Your task to perform on an android device: What's the weather going to be tomorrow? Image 0: 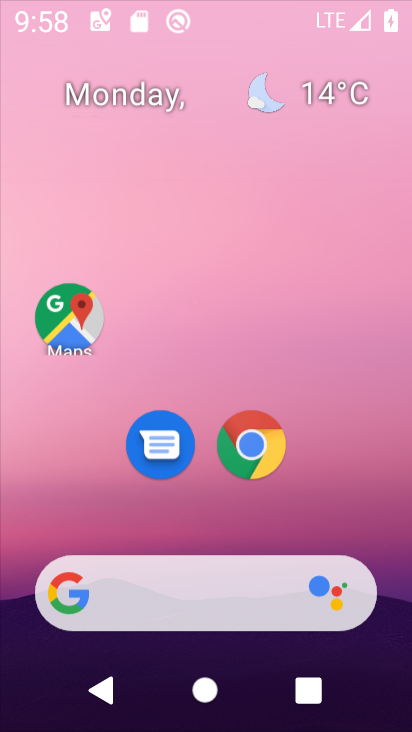
Step 0: press home button
Your task to perform on an android device: What's the weather going to be tomorrow? Image 1: 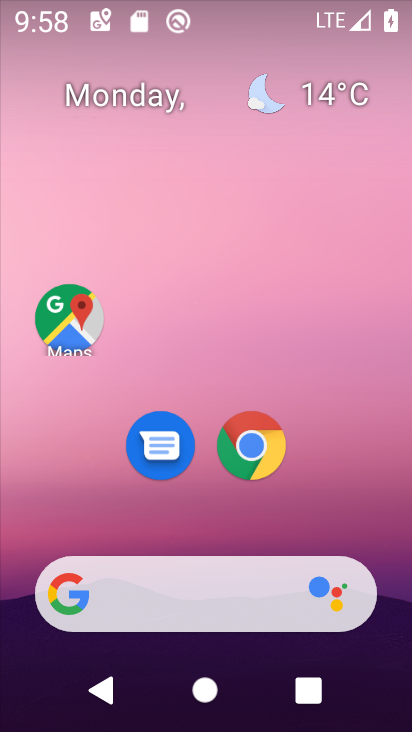
Step 1: click (334, 91)
Your task to perform on an android device: What's the weather going to be tomorrow? Image 2: 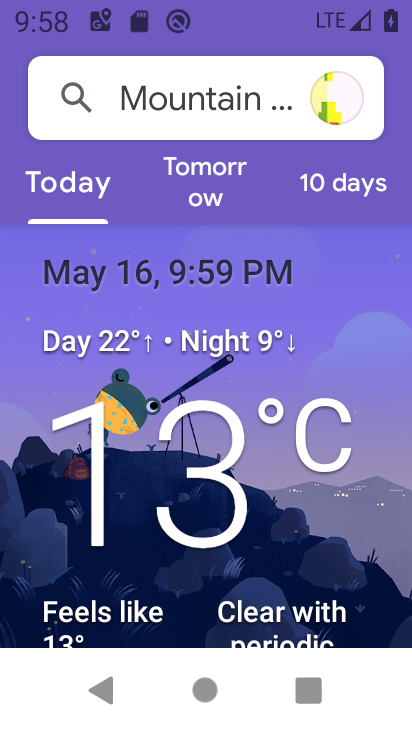
Step 2: click (211, 192)
Your task to perform on an android device: What's the weather going to be tomorrow? Image 3: 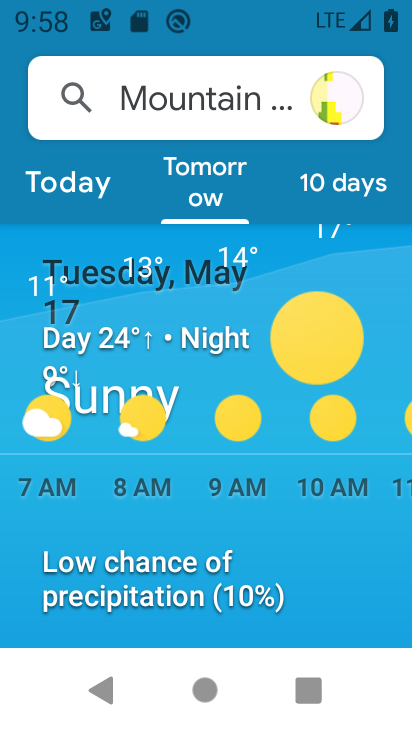
Step 3: drag from (356, 459) to (48, 410)
Your task to perform on an android device: What's the weather going to be tomorrow? Image 4: 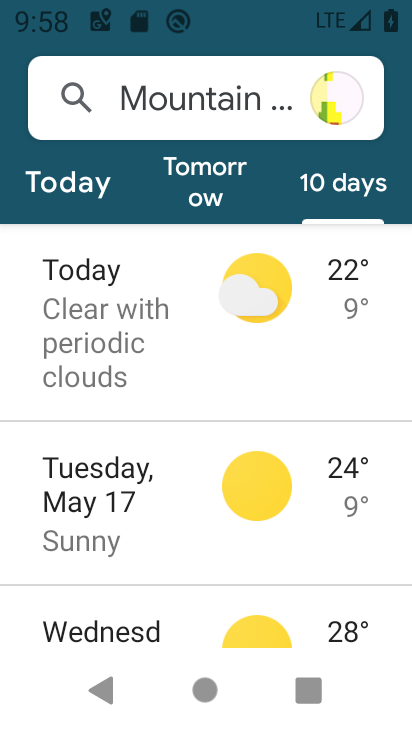
Step 4: click (212, 179)
Your task to perform on an android device: What's the weather going to be tomorrow? Image 5: 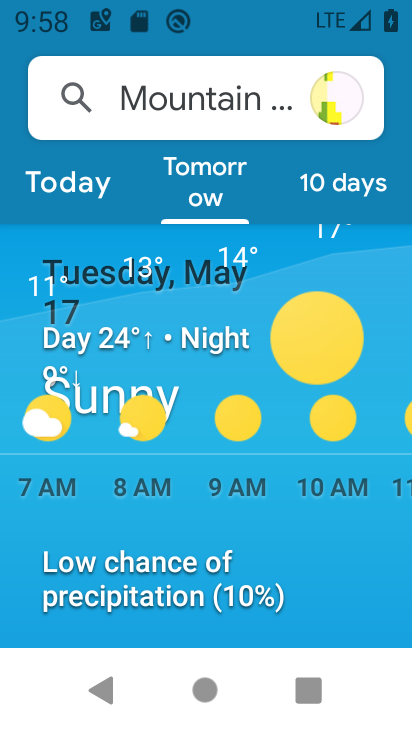
Step 5: task complete